Your task to perform on an android device: Go to Reddit.com Image 0: 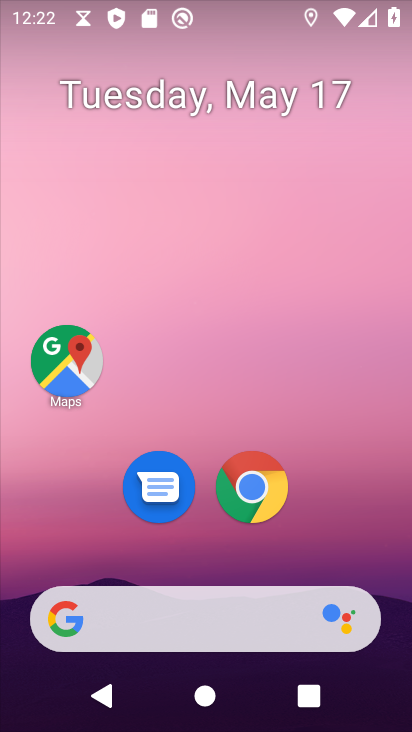
Step 0: drag from (368, 504) to (282, 3)
Your task to perform on an android device: Go to Reddit.com Image 1: 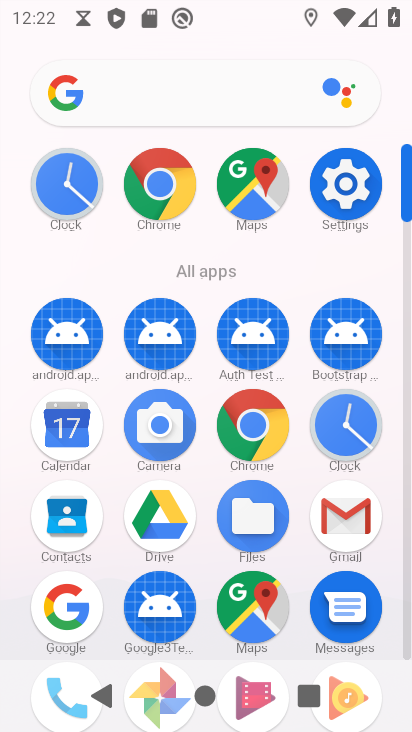
Step 1: drag from (9, 541) to (24, 265)
Your task to perform on an android device: Go to Reddit.com Image 2: 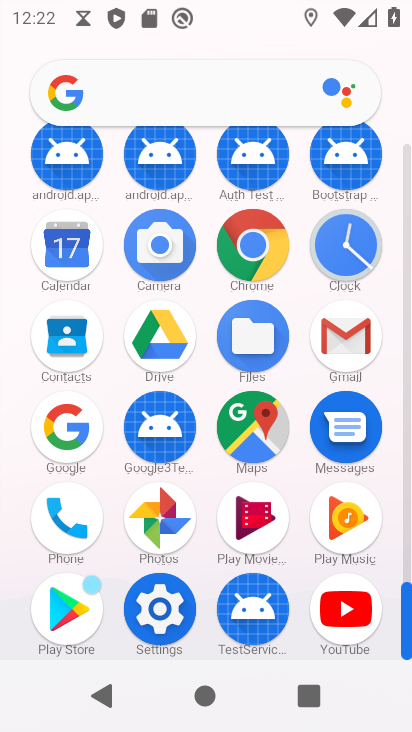
Step 2: click (250, 241)
Your task to perform on an android device: Go to Reddit.com Image 3: 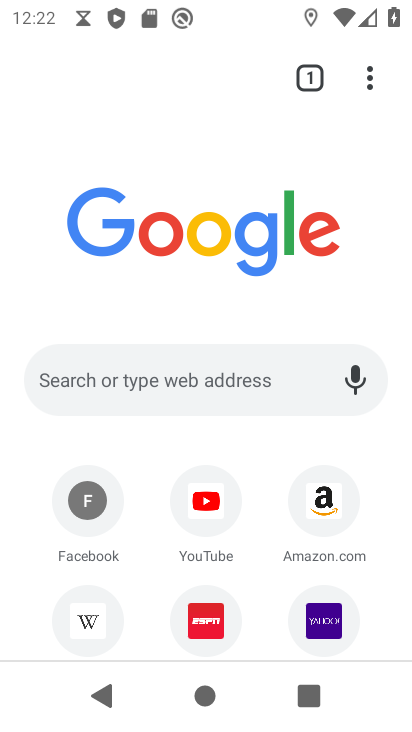
Step 3: drag from (12, 516) to (22, 300)
Your task to perform on an android device: Go to Reddit.com Image 4: 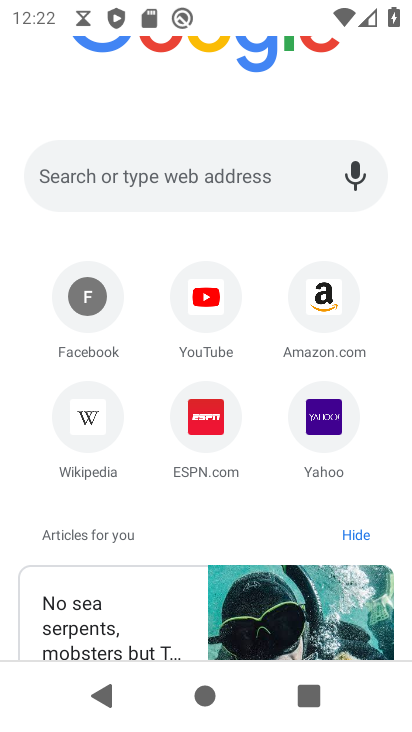
Step 4: click (213, 170)
Your task to perform on an android device: Go to Reddit.com Image 5: 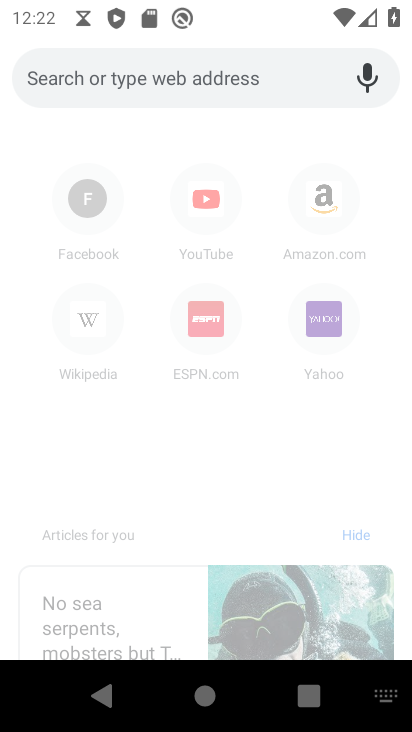
Step 5: type " Reddit.com"
Your task to perform on an android device: Go to Reddit.com Image 6: 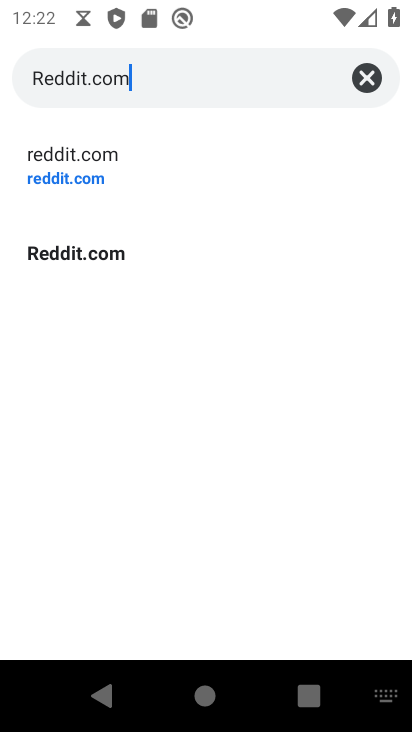
Step 6: type ""
Your task to perform on an android device: Go to Reddit.com Image 7: 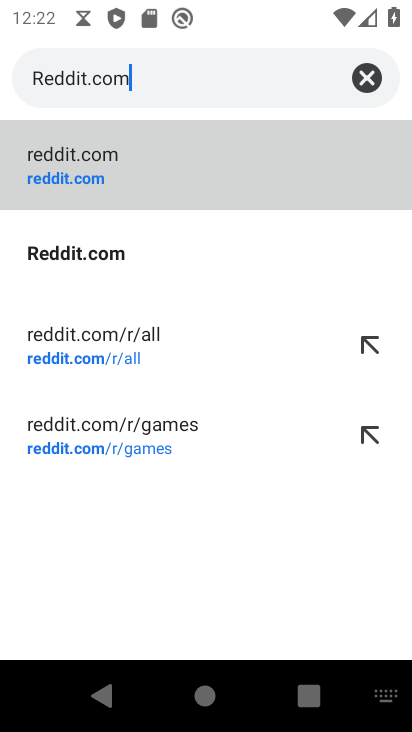
Step 7: click (195, 168)
Your task to perform on an android device: Go to Reddit.com Image 8: 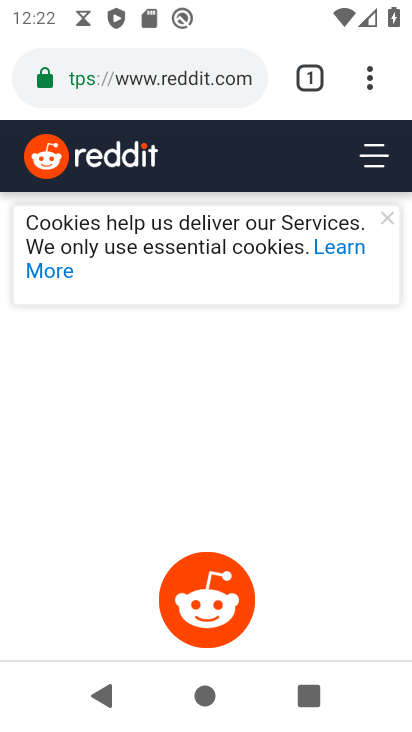
Step 8: task complete